Your task to perform on an android device: open app "Pluto TV - Live TV and Movies" Image 0: 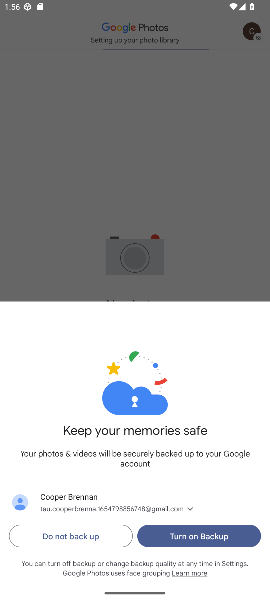
Step 0: press home button
Your task to perform on an android device: open app "Pluto TV - Live TV and Movies" Image 1: 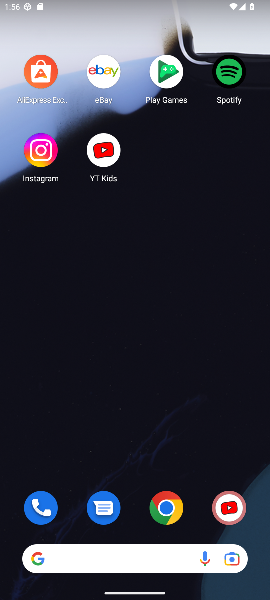
Step 1: drag from (139, 489) to (132, 169)
Your task to perform on an android device: open app "Pluto TV - Live TV and Movies" Image 2: 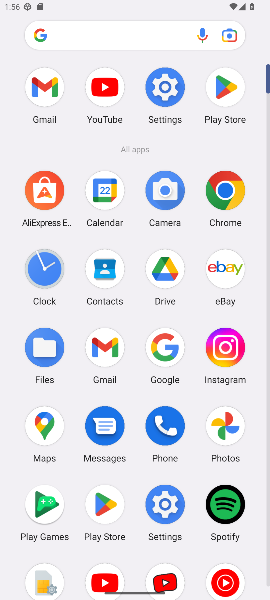
Step 2: click (219, 84)
Your task to perform on an android device: open app "Pluto TV - Live TV and Movies" Image 3: 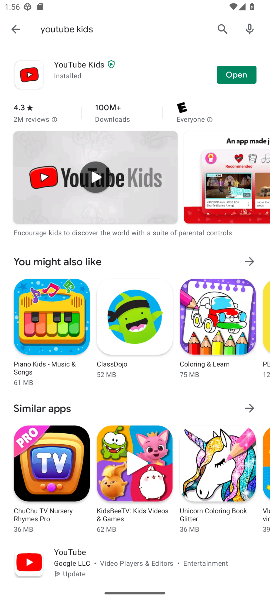
Step 3: click (219, 24)
Your task to perform on an android device: open app "Pluto TV - Live TV and Movies" Image 4: 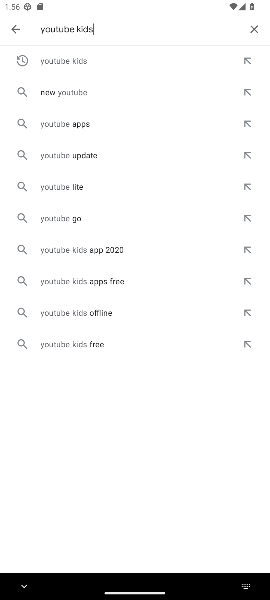
Step 4: click (256, 25)
Your task to perform on an android device: open app "Pluto TV - Live TV and Movies" Image 5: 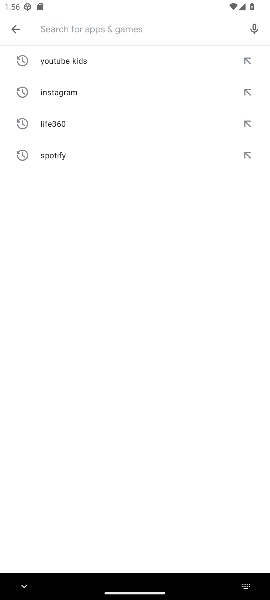
Step 5: type "pluto tv"
Your task to perform on an android device: open app "Pluto TV - Live TV and Movies" Image 6: 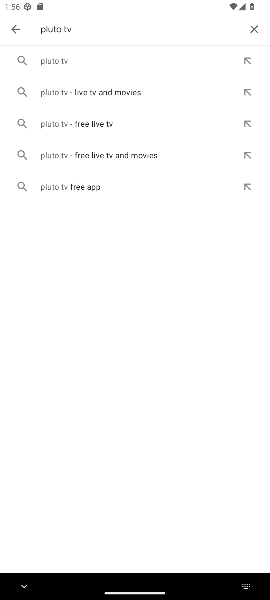
Step 6: click (56, 58)
Your task to perform on an android device: open app "Pluto TV - Live TV and Movies" Image 7: 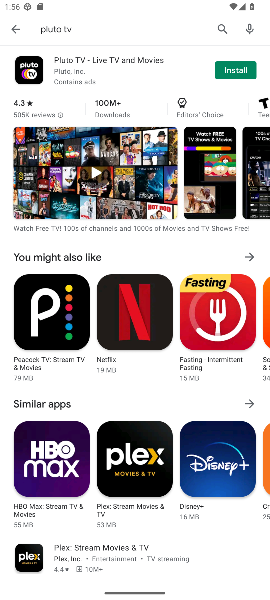
Step 7: task complete